Your task to perform on an android device: Open network settings Image 0: 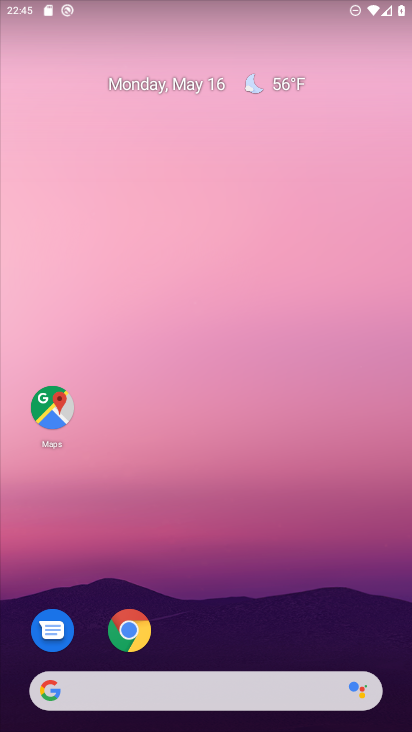
Step 0: drag from (255, 637) to (274, 97)
Your task to perform on an android device: Open network settings Image 1: 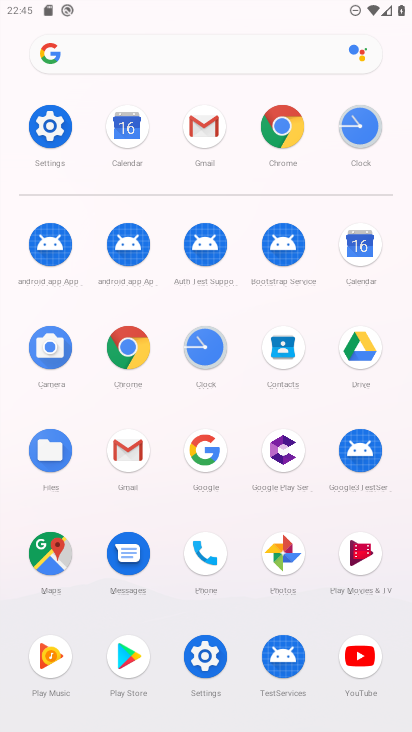
Step 1: click (17, 107)
Your task to perform on an android device: Open network settings Image 2: 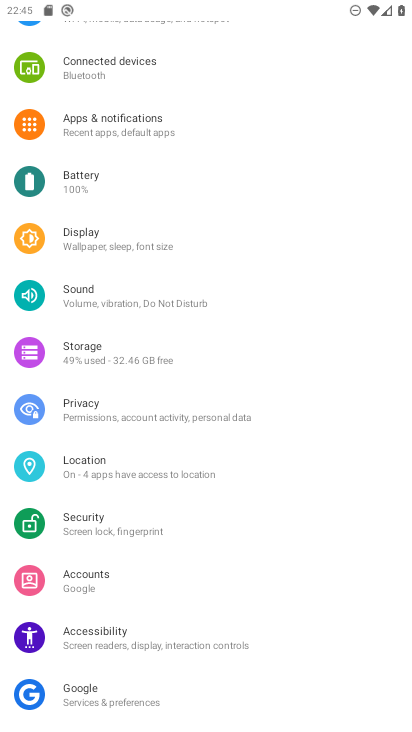
Step 2: drag from (136, 188) to (104, 497)
Your task to perform on an android device: Open network settings Image 3: 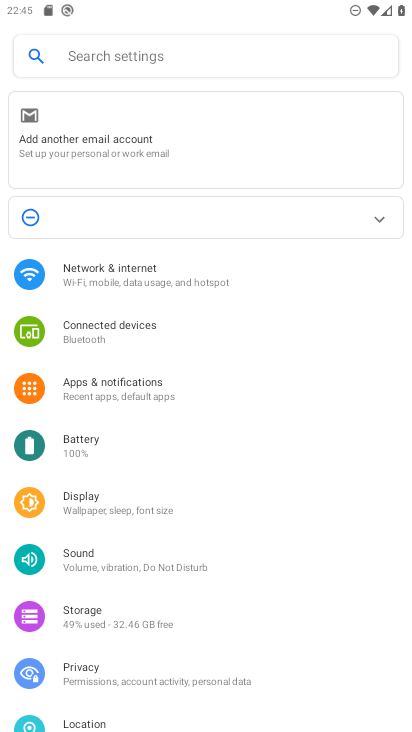
Step 3: click (111, 288)
Your task to perform on an android device: Open network settings Image 4: 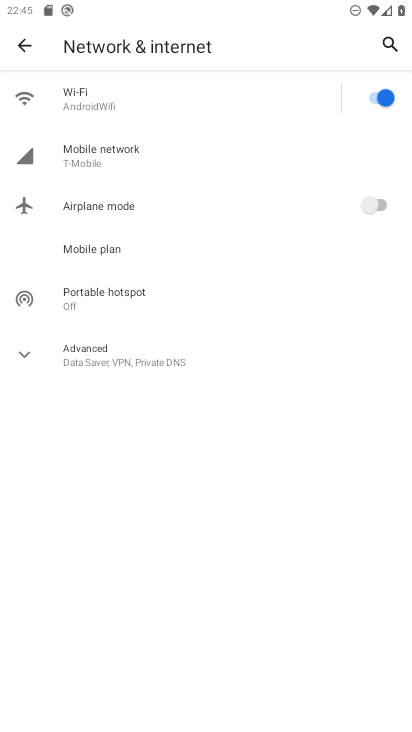
Step 4: task complete